Your task to perform on an android device: Go to settings Image 0: 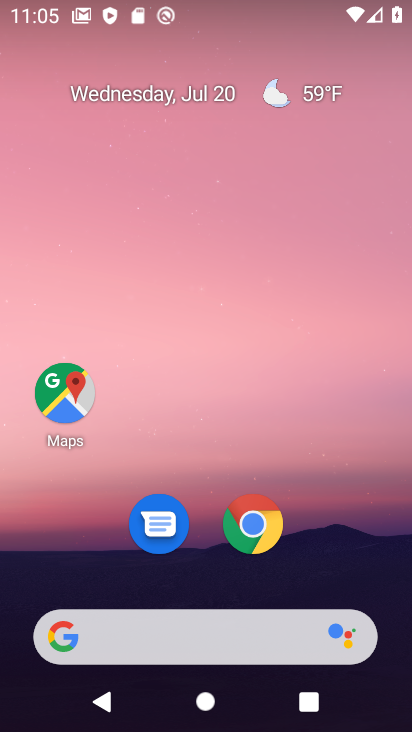
Step 0: drag from (219, 627) to (289, 144)
Your task to perform on an android device: Go to settings Image 1: 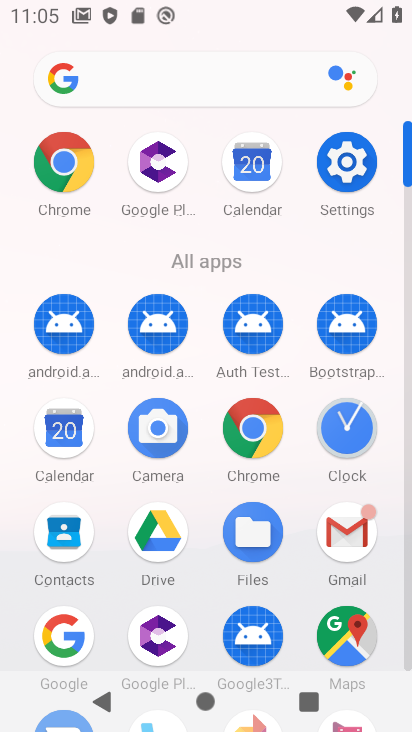
Step 1: click (355, 167)
Your task to perform on an android device: Go to settings Image 2: 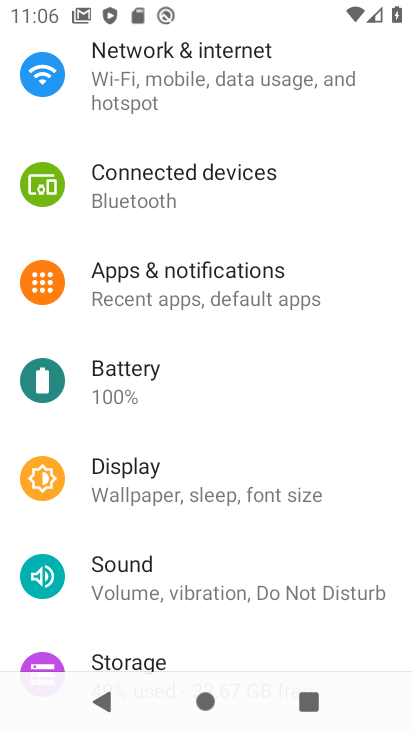
Step 2: task complete